Your task to perform on an android device: Is it going to rain this weekend? Image 0: 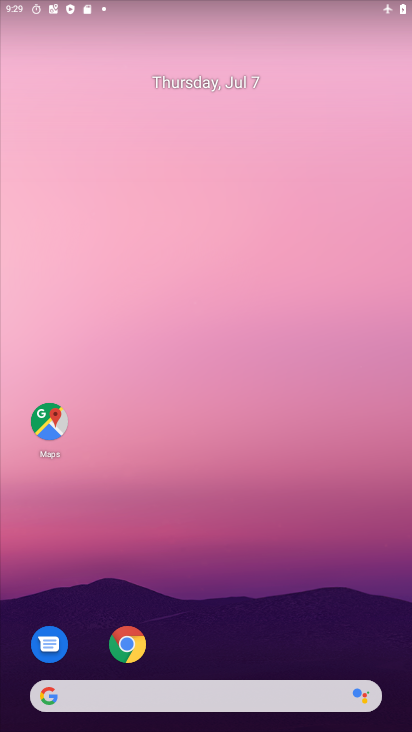
Step 0: click (219, 694)
Your task to perform on an android device: Is it going to rain this weekend? Image 1: 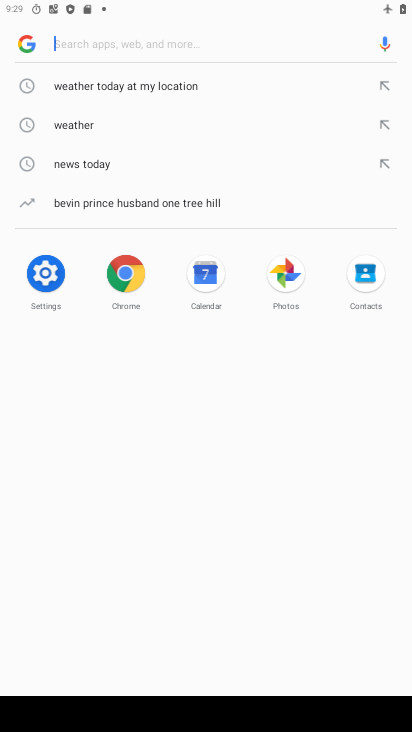
Step 1: click (79, 121)
Your task to perform on an android device: Is it going to rain this weekend? Image 2: 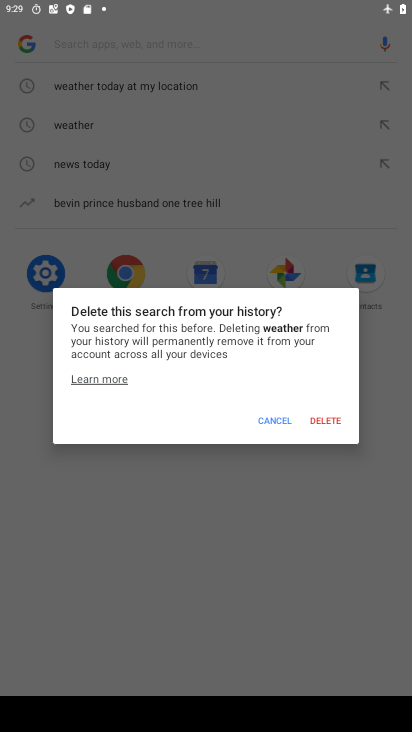
Step 2: click (275, 420)
Your task to perform on an android device: Is it going to rain this weekend? Image 3: 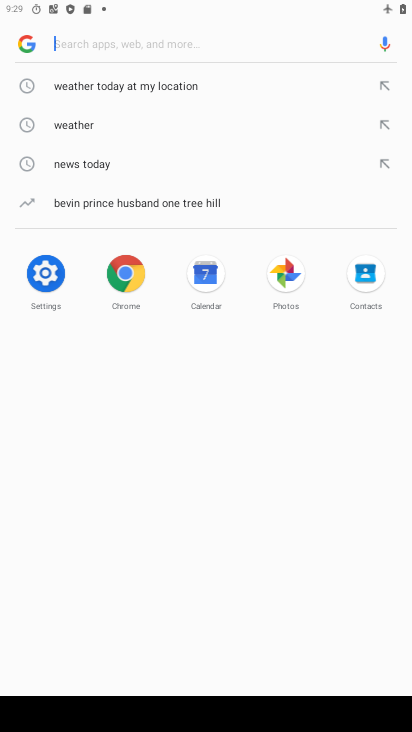
Step 3: click (83, 127)
Your task to perform on an android device: Is it going to rain this weekend? Image 4: 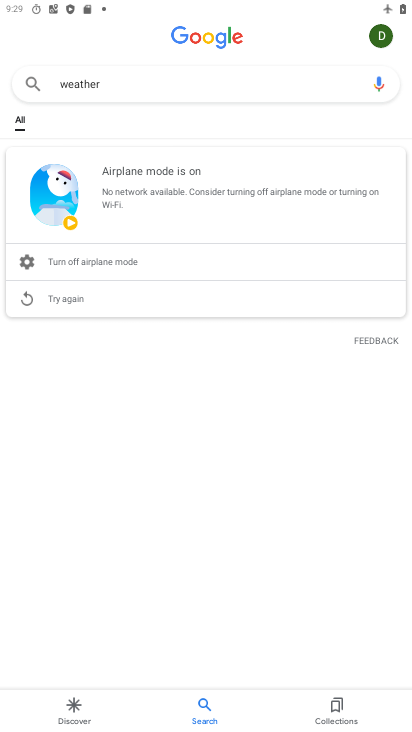
Step 4: task complete